Your task to perform on an android device: change alarm snooze length Image 0: 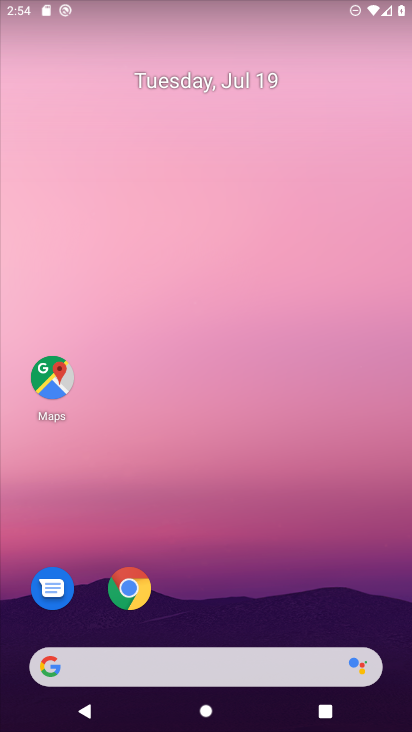
Step 0: drag from (183, 497) to (209, 143)
Your task to perform on an android device: change alarm snooze length Image 1: 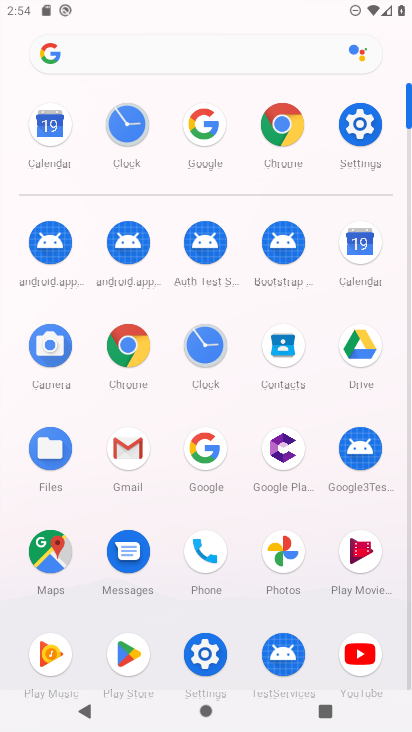
Step 1: click (195, 353)
Your task to perform on an android device: change alarm snooze length Image 2: 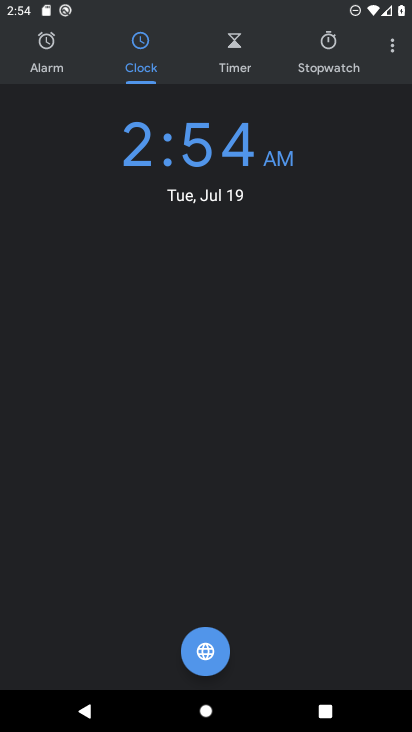
Step 2: click (392, 45)
Your task to perform on an android device: change alarm snooze length Image 3: 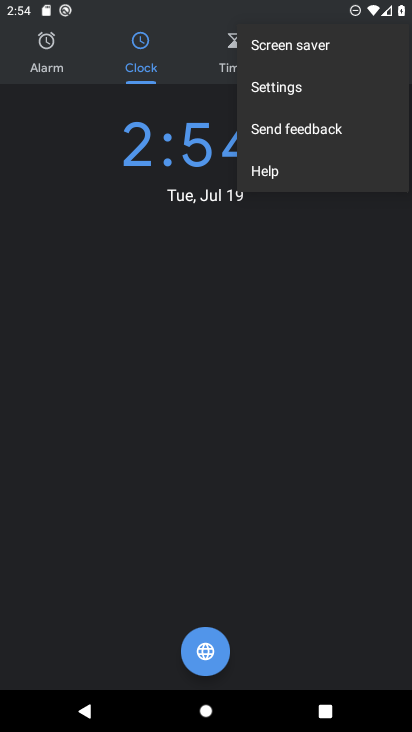
Step 3: click (285, 87)
Your task to perform on an android device: change alarm snooze length Image 4: 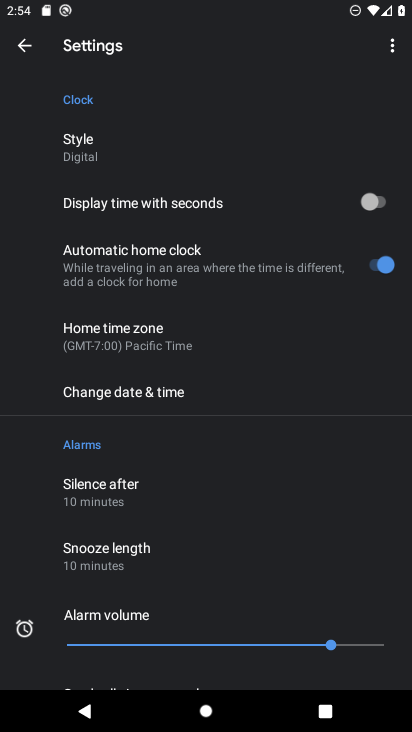
Step 4: click (107, 566)
Your task to perform on an android device: change alarm snooze length Image 5: 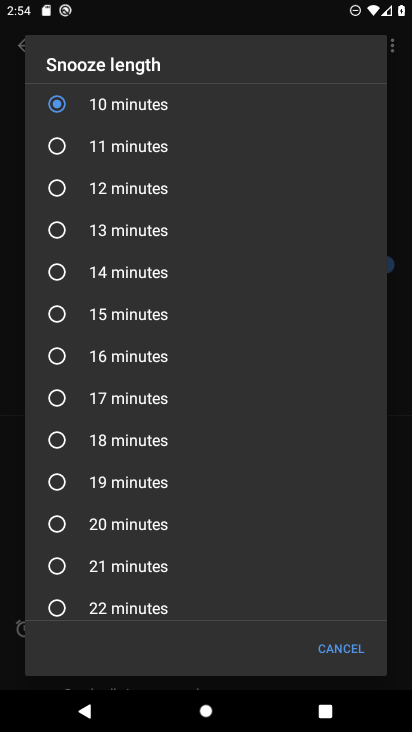
Step 5: click (60, 146)
Your task to perform on an android device: change alarm snooze length Image 6: 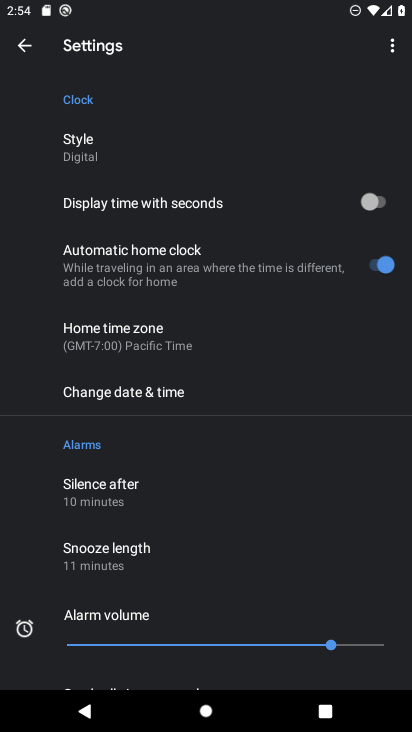
Step 6: task complete